Your task to perform on an android device: turn smart compose on in the gmail app Image 0: 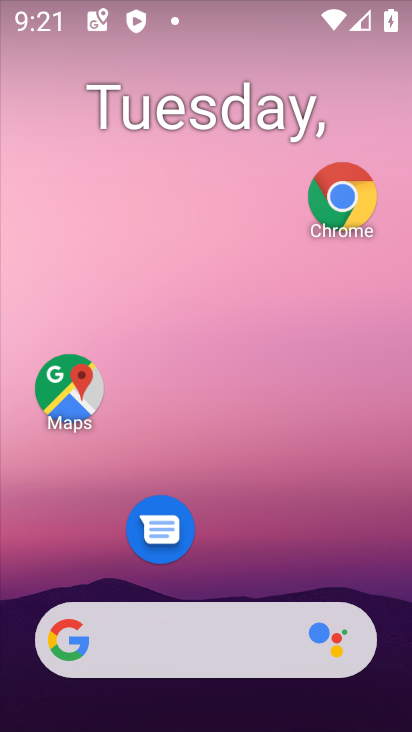
Step 0: drag from (234, 557) to (31, 195)
Your task to perform on an android device: turn smart compose on in the gmail app Image 1: 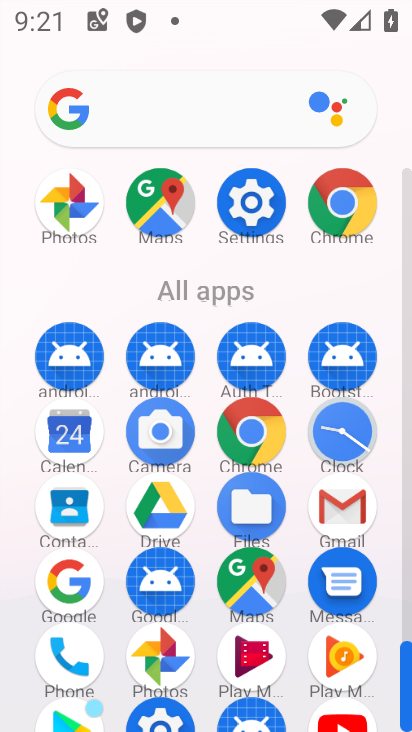
Step 1: click (344, 496)
Your task to perform on an android device: turn smart compose on in the gmail app Image 2: 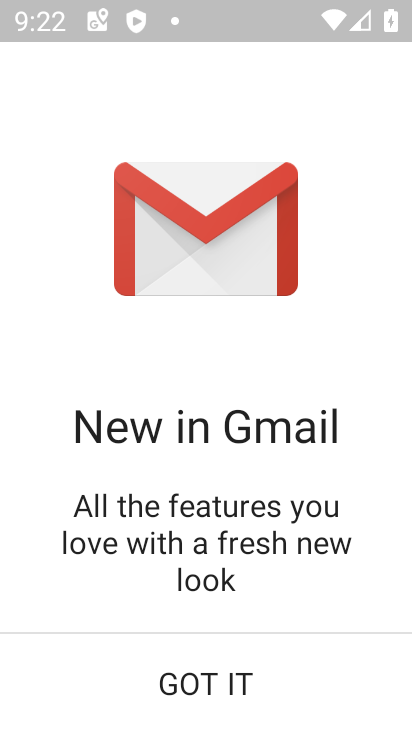
Step 2: click (208, 688)
Your task to perform on an android device: turn smart compose on in the gmail app Image 3: 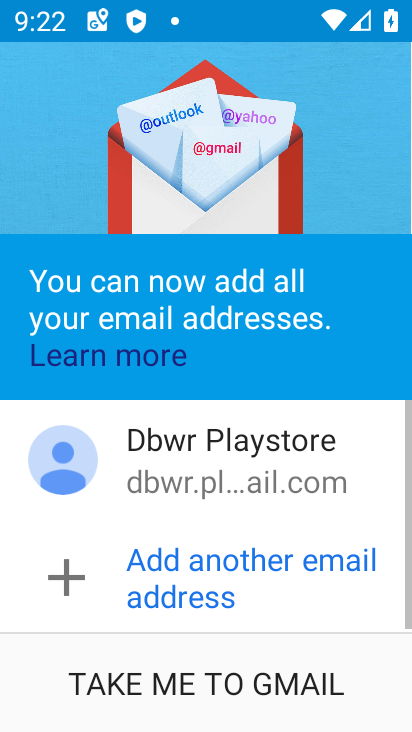
Step 3: click (208, 688)
Your task to perform on an android device: turn smart compose on in the gmail app Image 4: 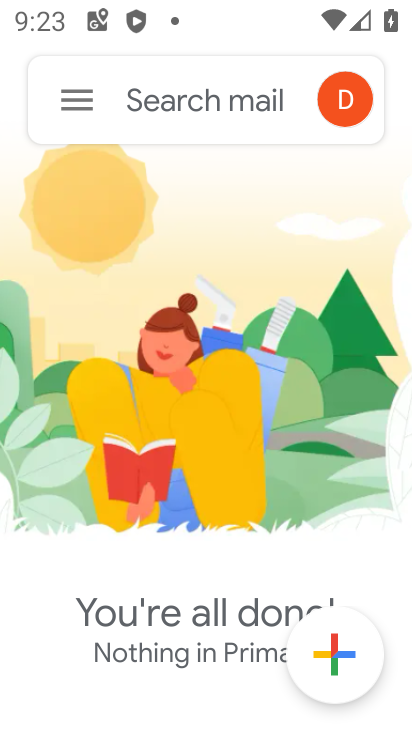
Step 4: press home button
Your task to perform on an android device: turn smart compose on in the gmail app Image 5: 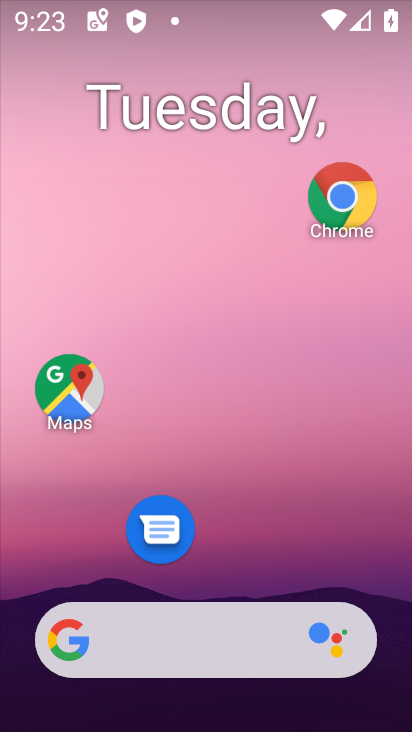
Step 5: drag from (266, 531) to (215, 106)
Your task to perform on an android device: turn smart compose on in the gmail app Image 6: 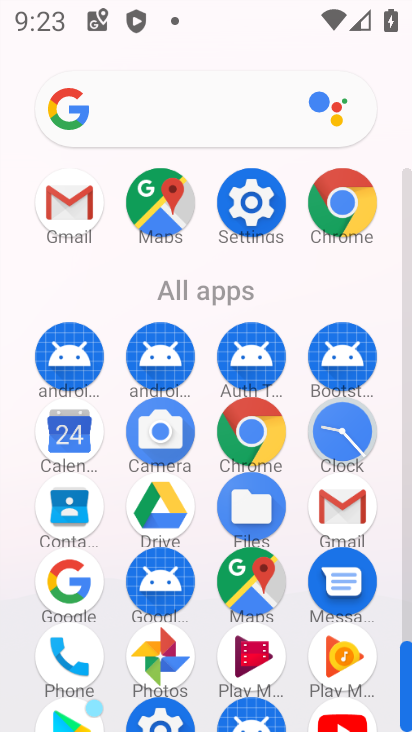
Step 6: click (67, 203)
Your task to perform on an android device: turn smart compose on in the gmail app Image 7: 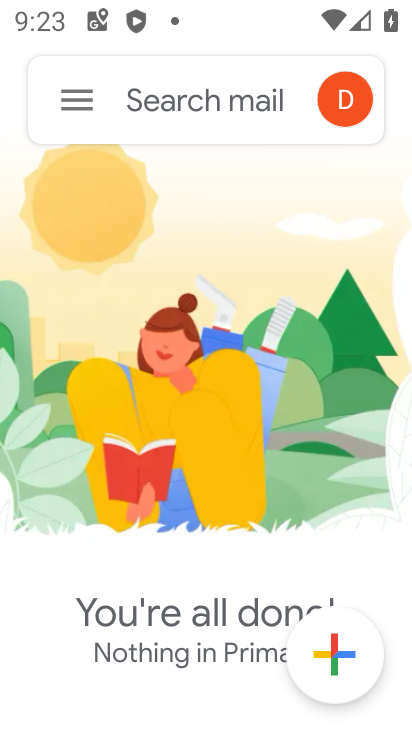
Step 7: click (70, 110)
Your task to perform on an android device: turn smart compose on in the gmail app Image 8: 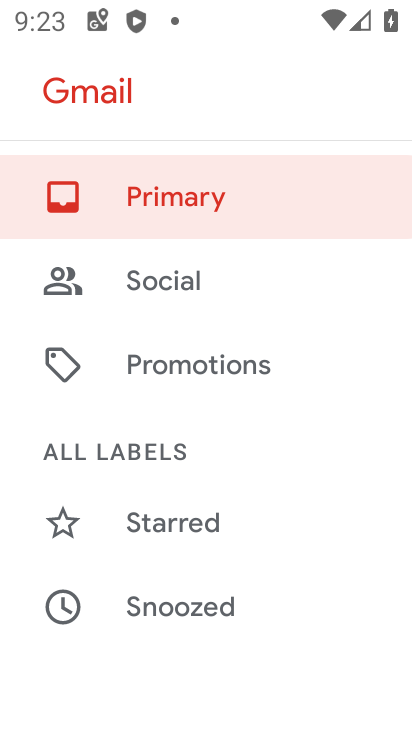
Step 8: drag from (194, 577) to (162, 75)
Your task to perform on an android device: turn smart compose on in the gmail app Image 9: 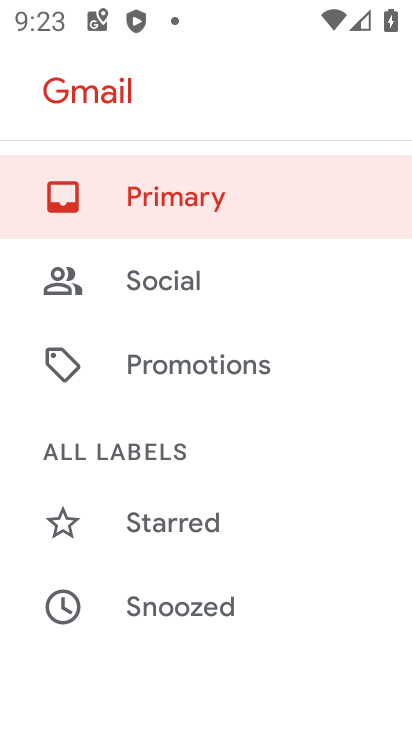
Step 9: drag from (228, 635) to (235, 305)
Your task to perform on an android device: turn smart compose on in the gmail app Image 10: 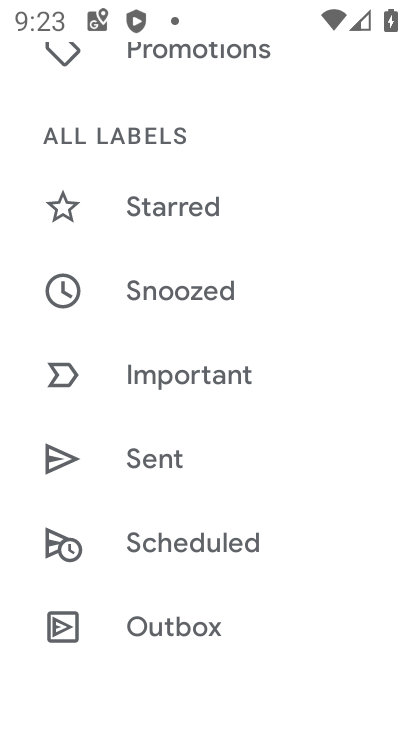
Step 10: drag from (234, 572) to (228, 131)
Your task to perform on an android device: turn smart compose on in the gmail app Image 11: 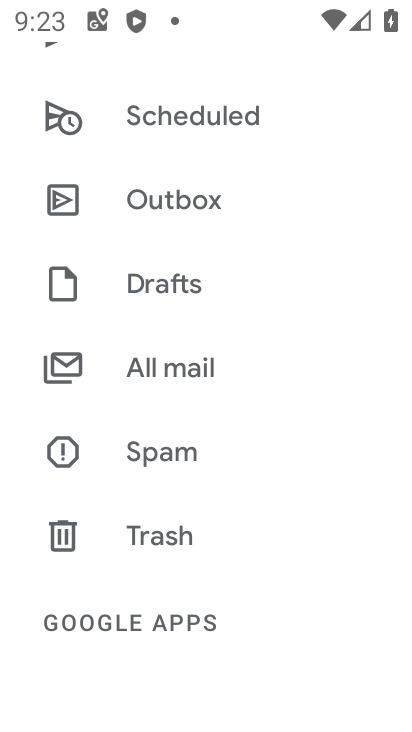
Step 11: drag from (216, 580) to (126, 112)
Your task to perform on an android device: turn smart compose on in the gmail app Image 12: 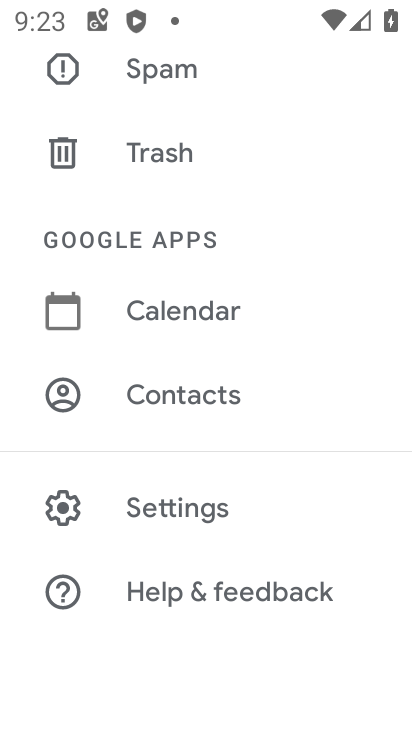
Step 12: click (239, 509)
Your task to perform on an android device: turn smart compose on in the gmail app Image 13: 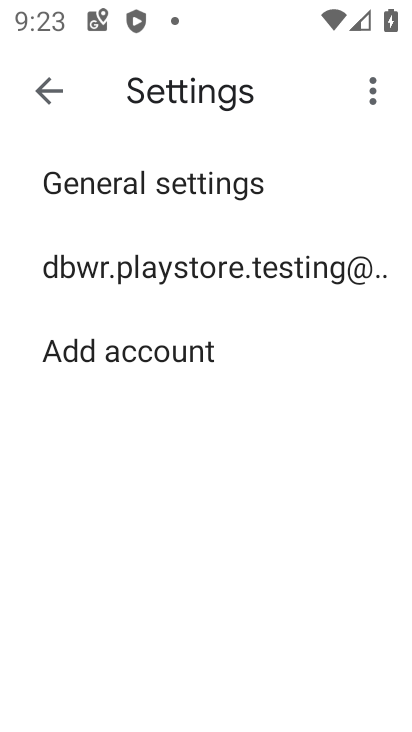
Step 13: click (236, 274)
Your task to perform on an android device: turn smart compose on in the gmail app Image 14: 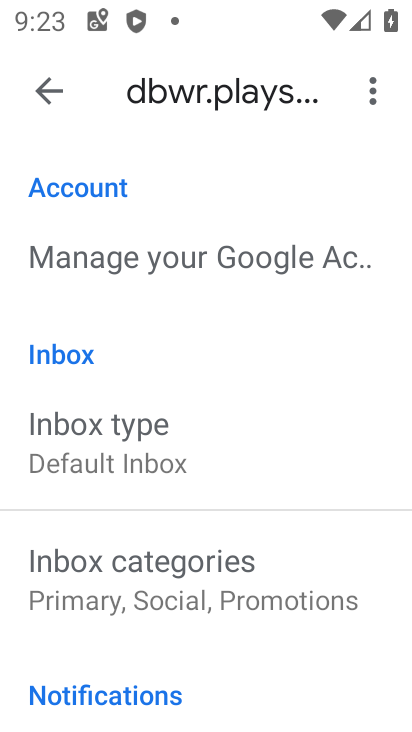
Step 14: drag from (272, 634) to (257, 150)
Your task to perform on an android device: turn smart compose on in the gmail app Image 15: 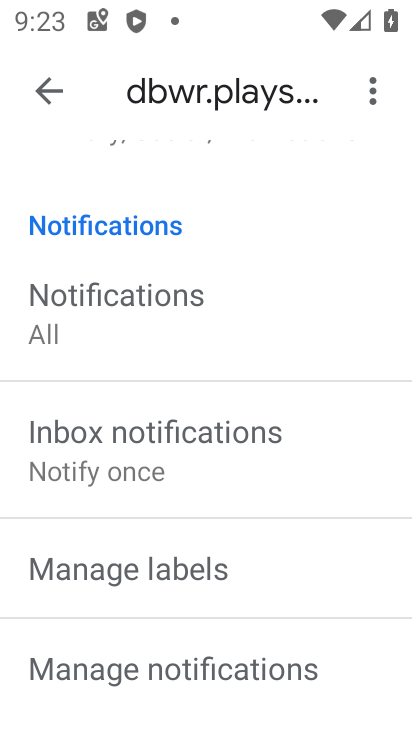
Step 15: click (277, 221)
Your task to perform on an android device: turn smart compose on in the gmail app Image 16: 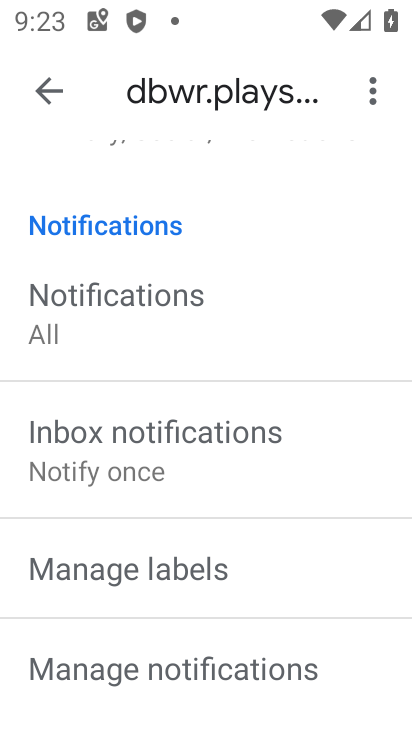
Step 16: task complete